Your task to perform on an android device: find photos in the google photos app Image 0: 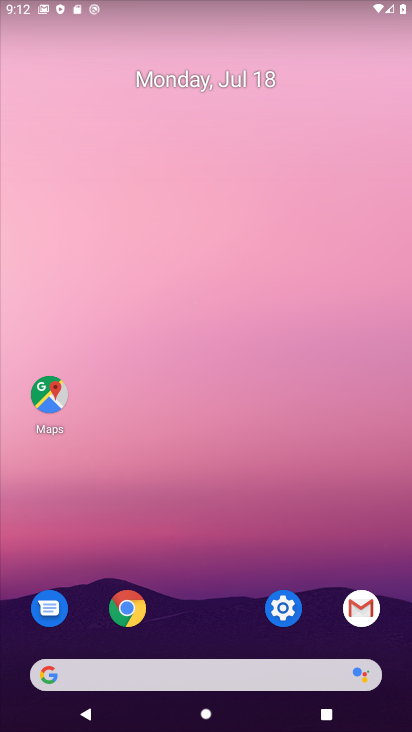
Step 0: drag from (241, 681) to (386, 61)
Your task to perform on an android device: find photos in the google photos app Image 1: 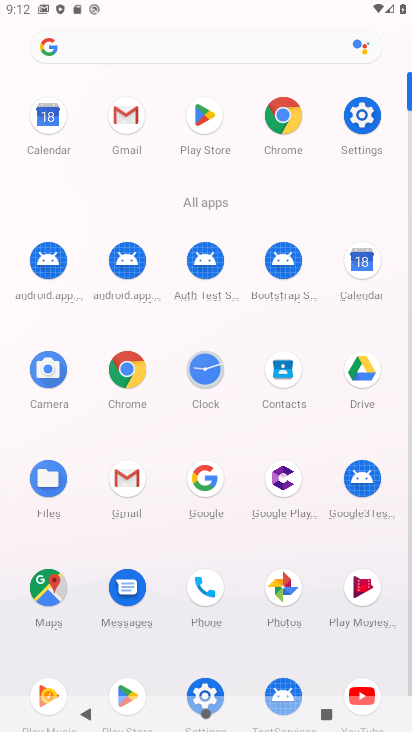
Step 1: click (285, 588)
Your task to perform on an android device: find photos in the google photos app Image 2: 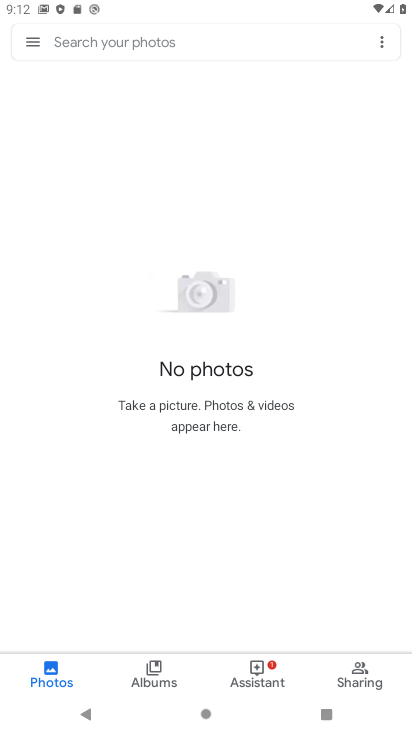
Step 2: click (50, 686)
Your task to perform on an android device: find photos in the google photos app Image 3: 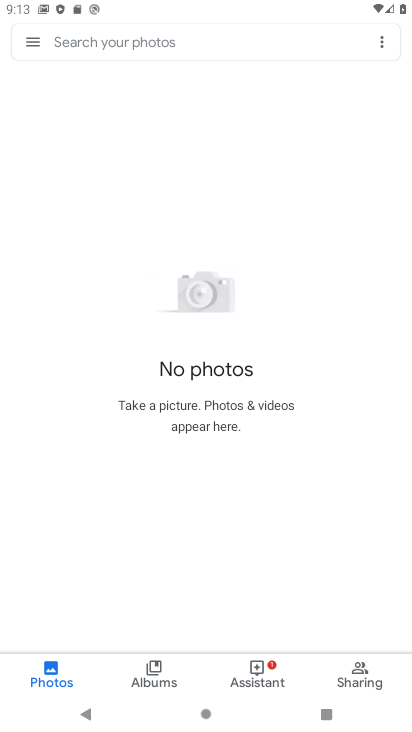
Step 3: task complete